Your task to perform on an android device: turn off smart reply in the gmail app Image 0: 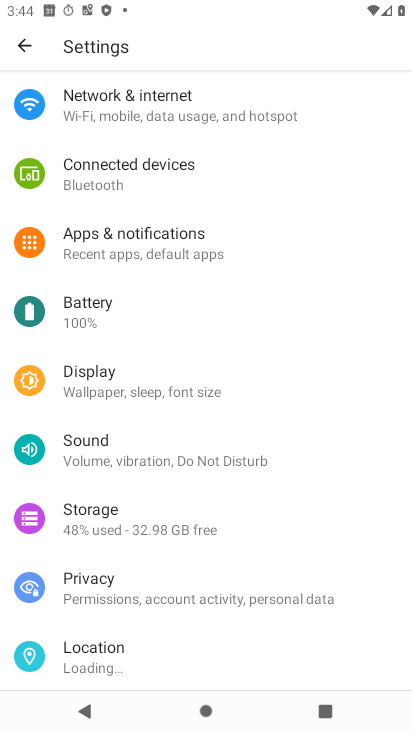
Step 0: press home button
Your task to perform on an android device: turn off smart reply in the gmail app Image 1: 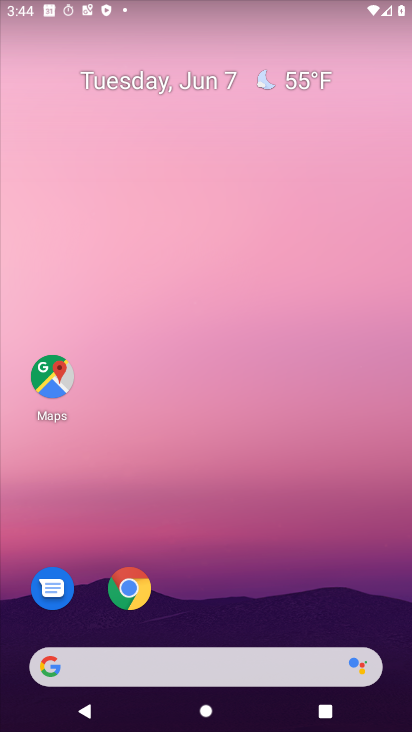
Step 1: drag from (268, 611) to (284, 172)
Your task to perform on an android device: turn off smart reply in the gmail app Image 2: 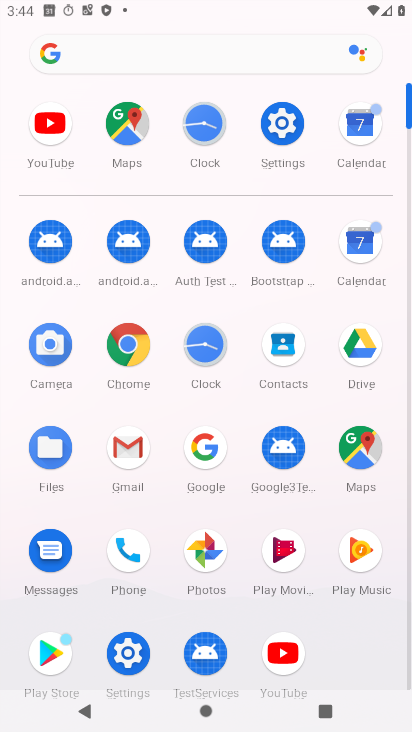
Step 2: click (129, 453)
Your task to perform on an android device: turn off smart reply in the gmail app Image 3: 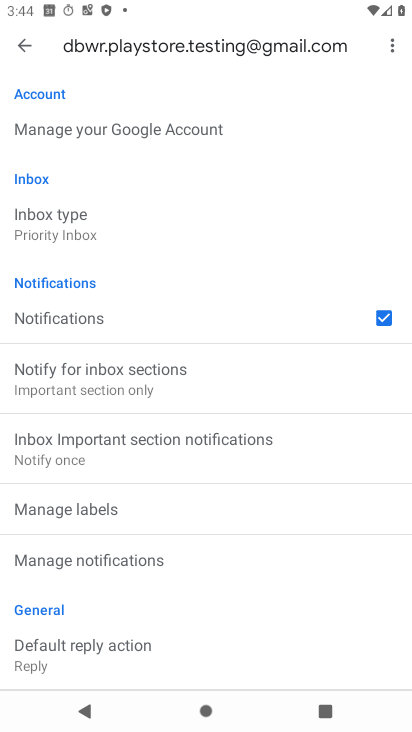
Step 3: drag from (251, 586) to (241, 6)
Your task to perform on an android device: turn off smart reply in the gmail app Image 4: 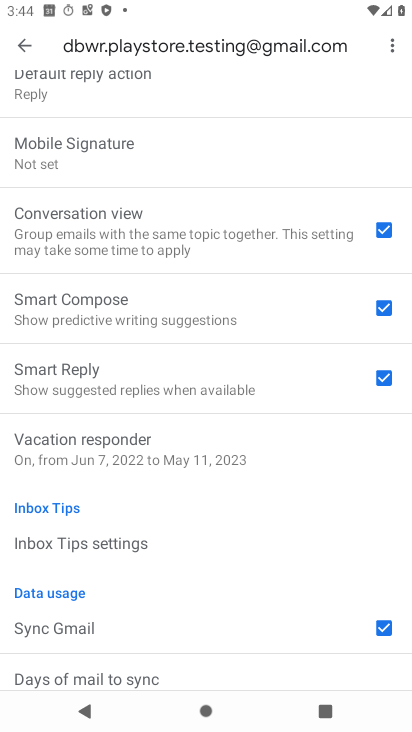
Step 4: click (390, 379)
Your task to perform on an android device: turn off smart reply in the gmail app Image 5: 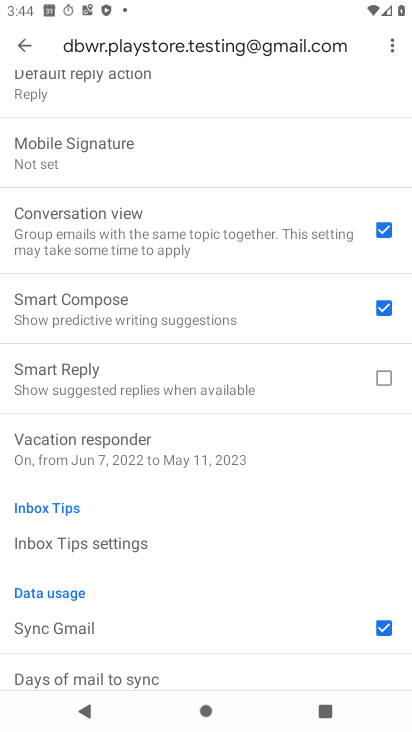
Step 5: task complete